Your task to perform on an android device: change the clock style Image 0: 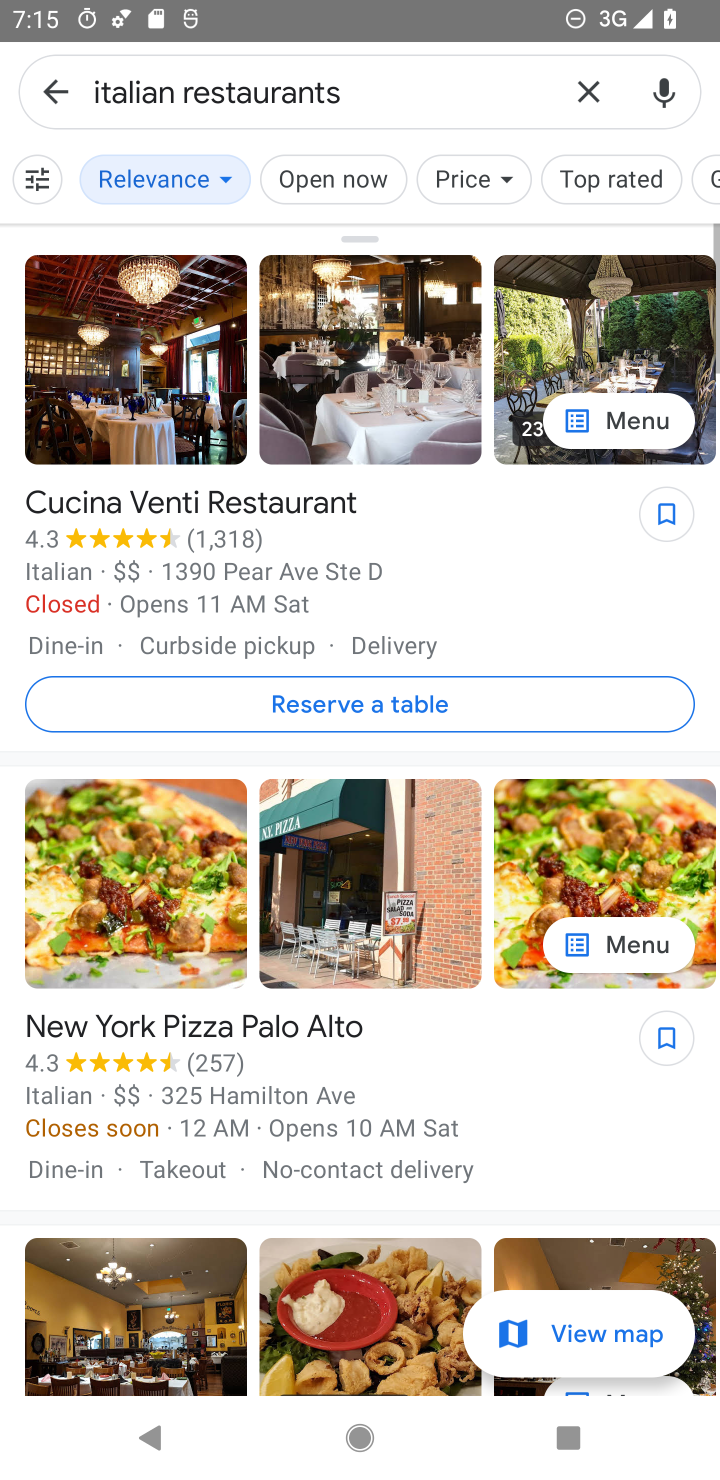
Step 0: drag from (488, 897) to (502, 502)
Your task to perform on an android device: change the clock style Image 1: 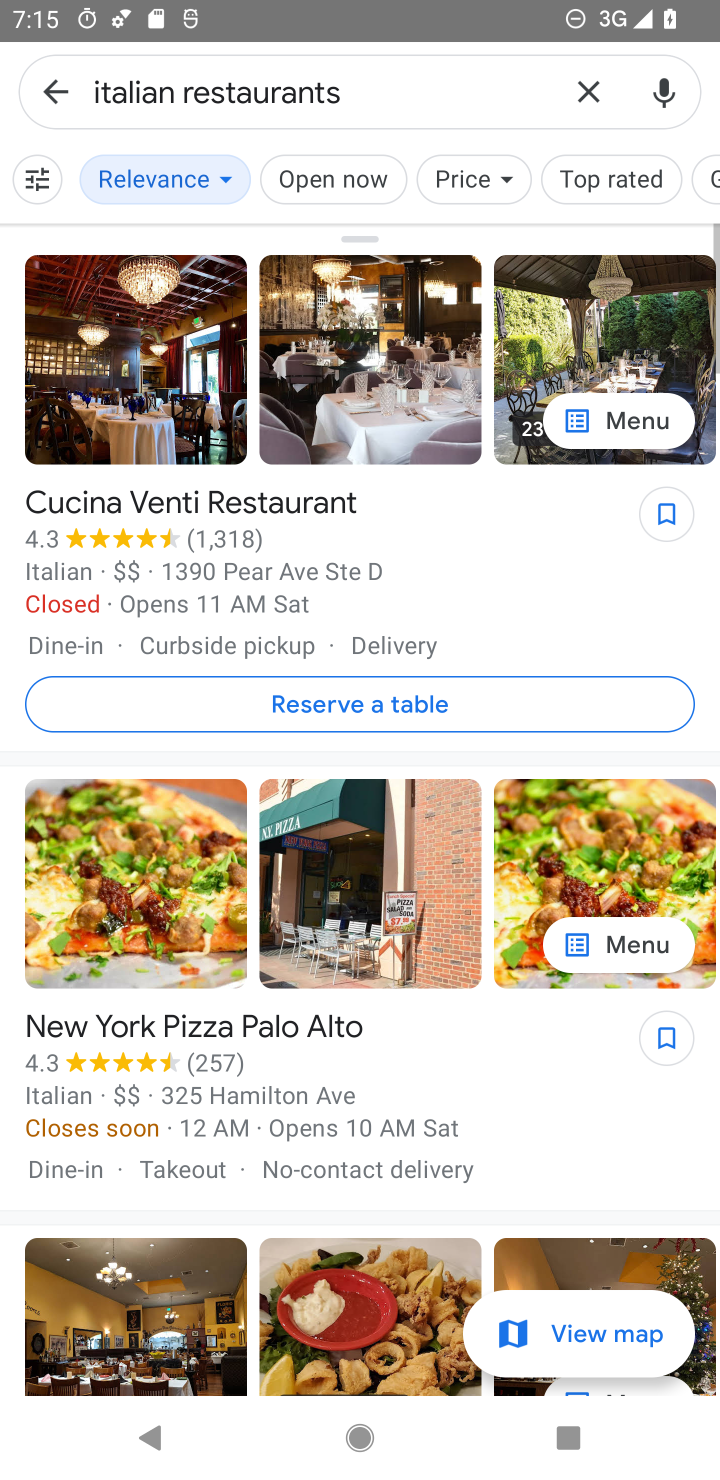
Step 1: drag from (447, 835) to (492, 482)
Your task to perform on an android device: change the clock style Image 2: 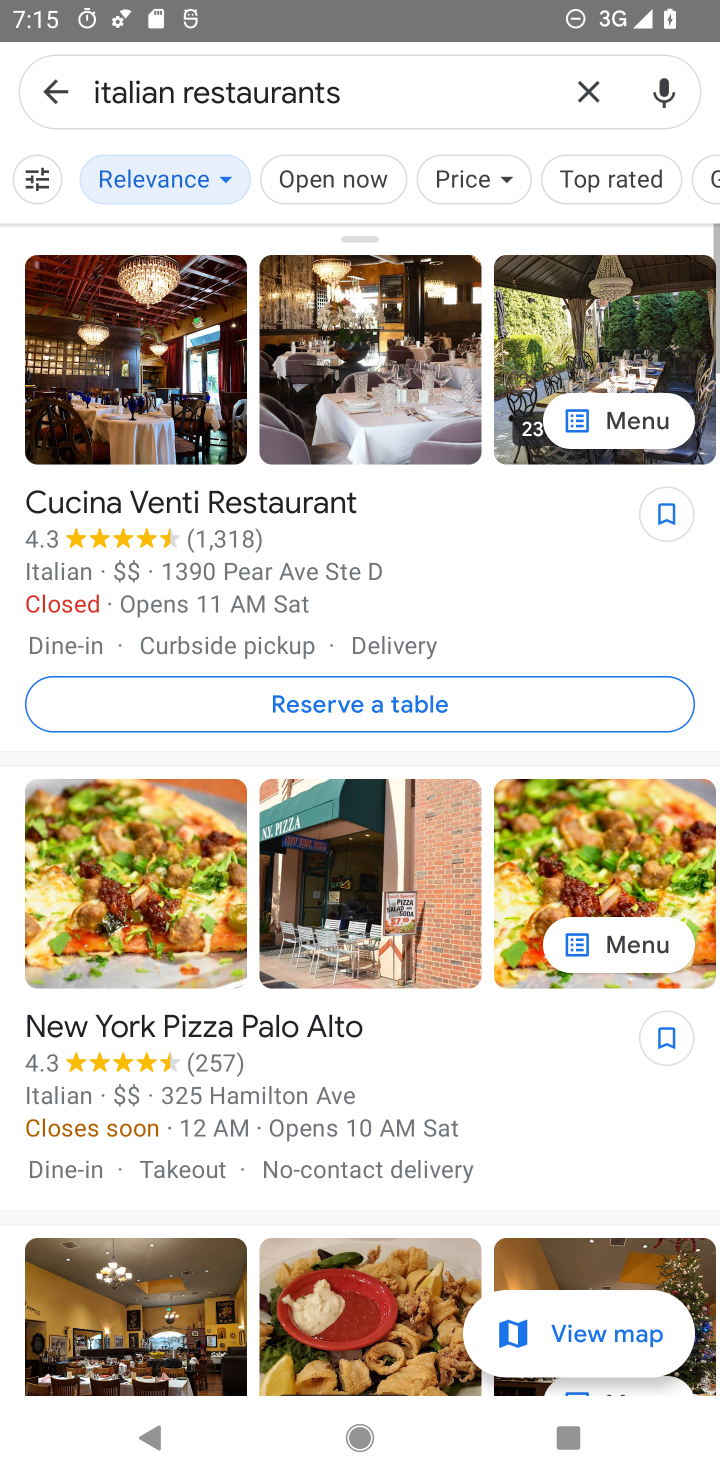
Step 2: drag from (420, 576) to (418, 1201)
Your task to perform on an android device: change the clock style Image 3: 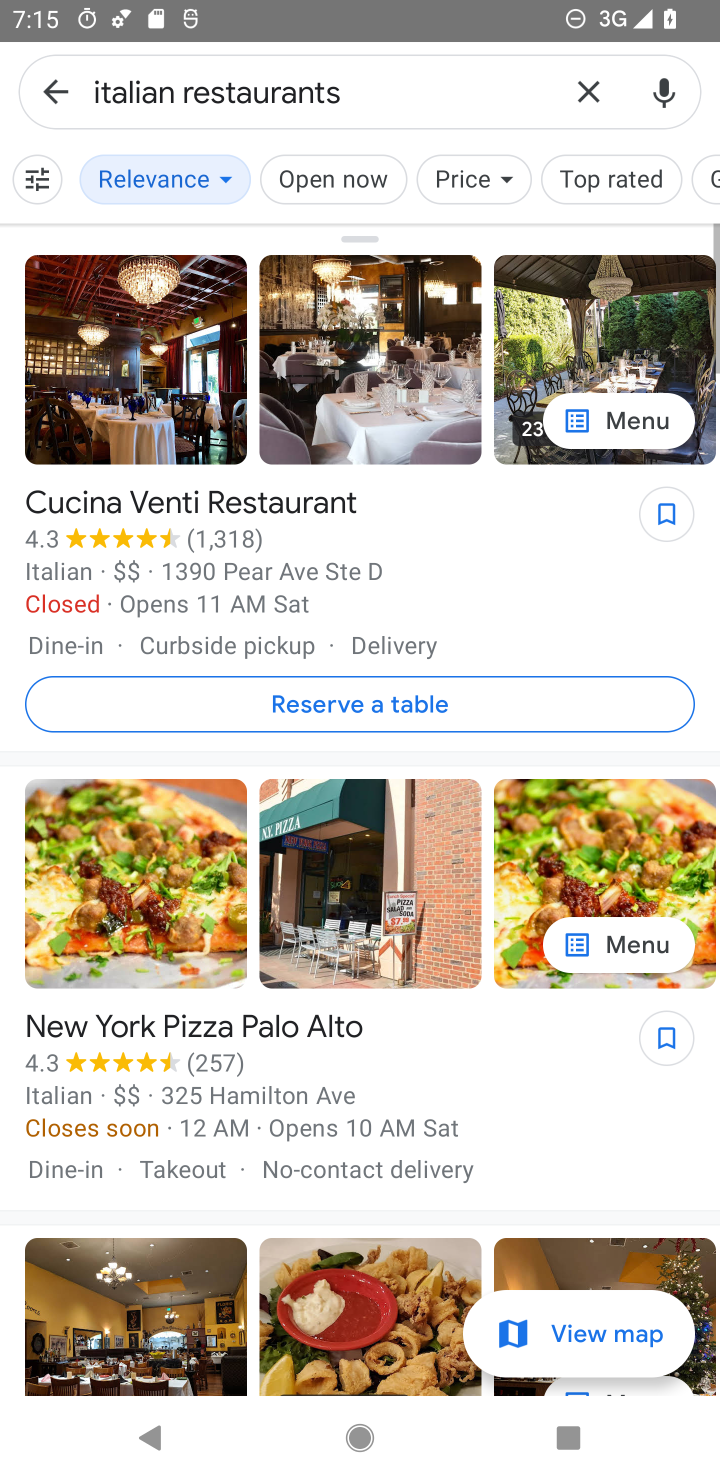
Step 3: drag from (492, 440) to (613, 252)
Your task to perform on an android device: change the clock style Image 4: 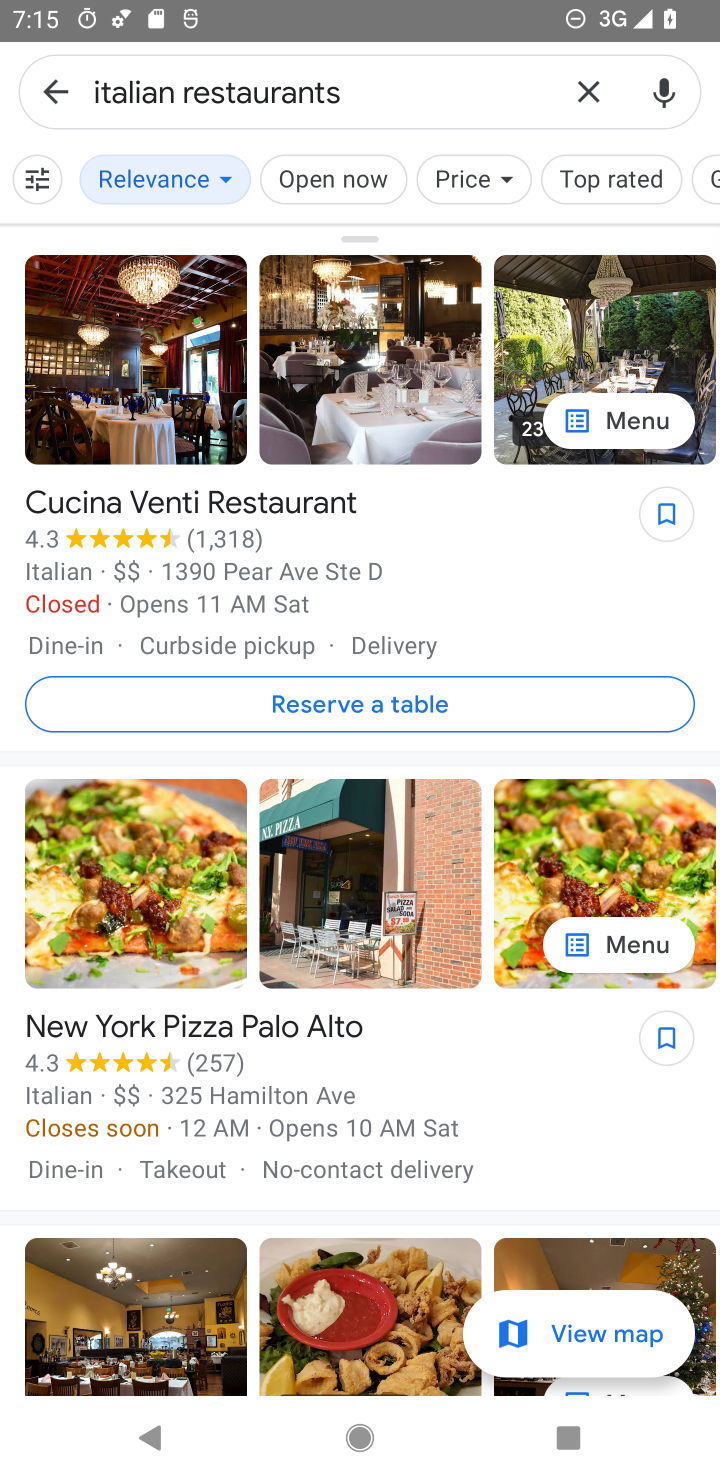
Step 4: drag from (363, 945) to (363, 401)
Your task to perform on an android device: change the clock style Image 5: 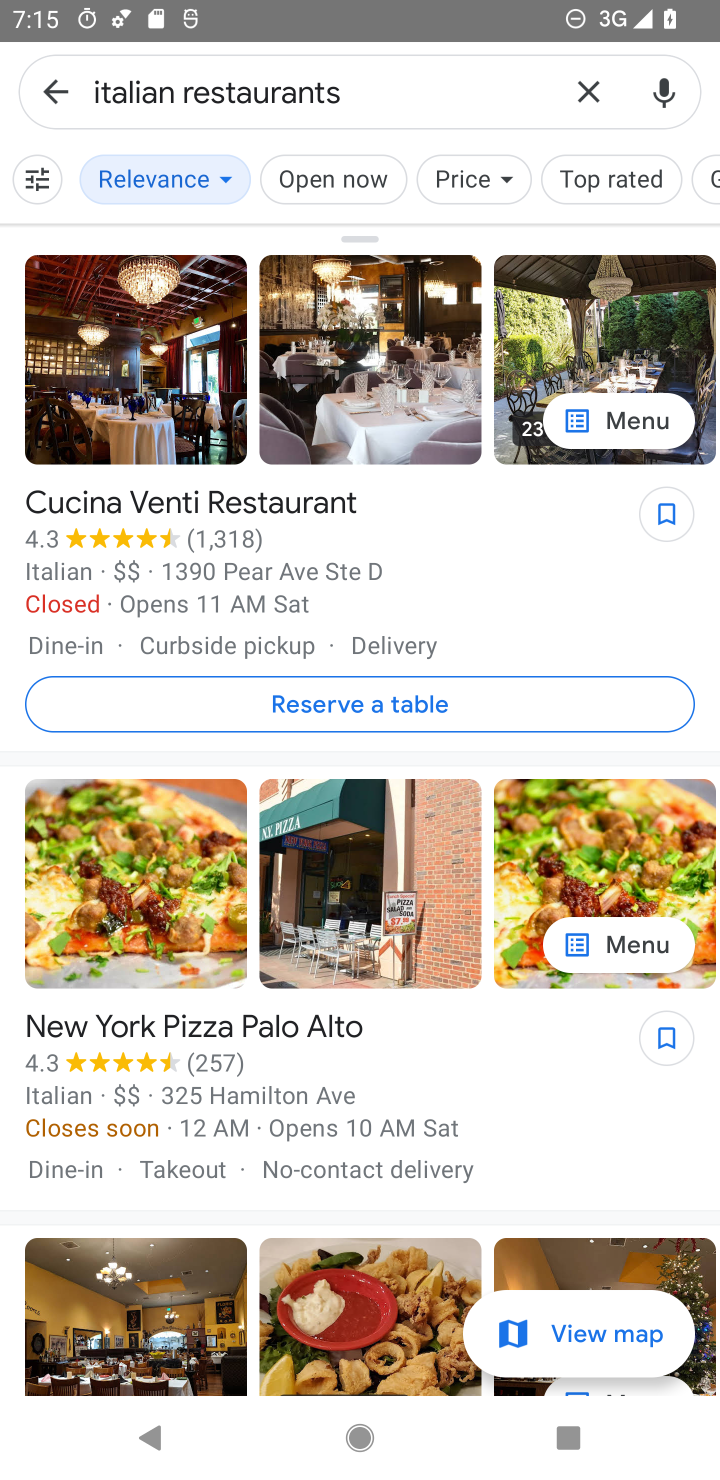
Step 5: press home button
Your task to perform on an android device: change the clock style Image 6: 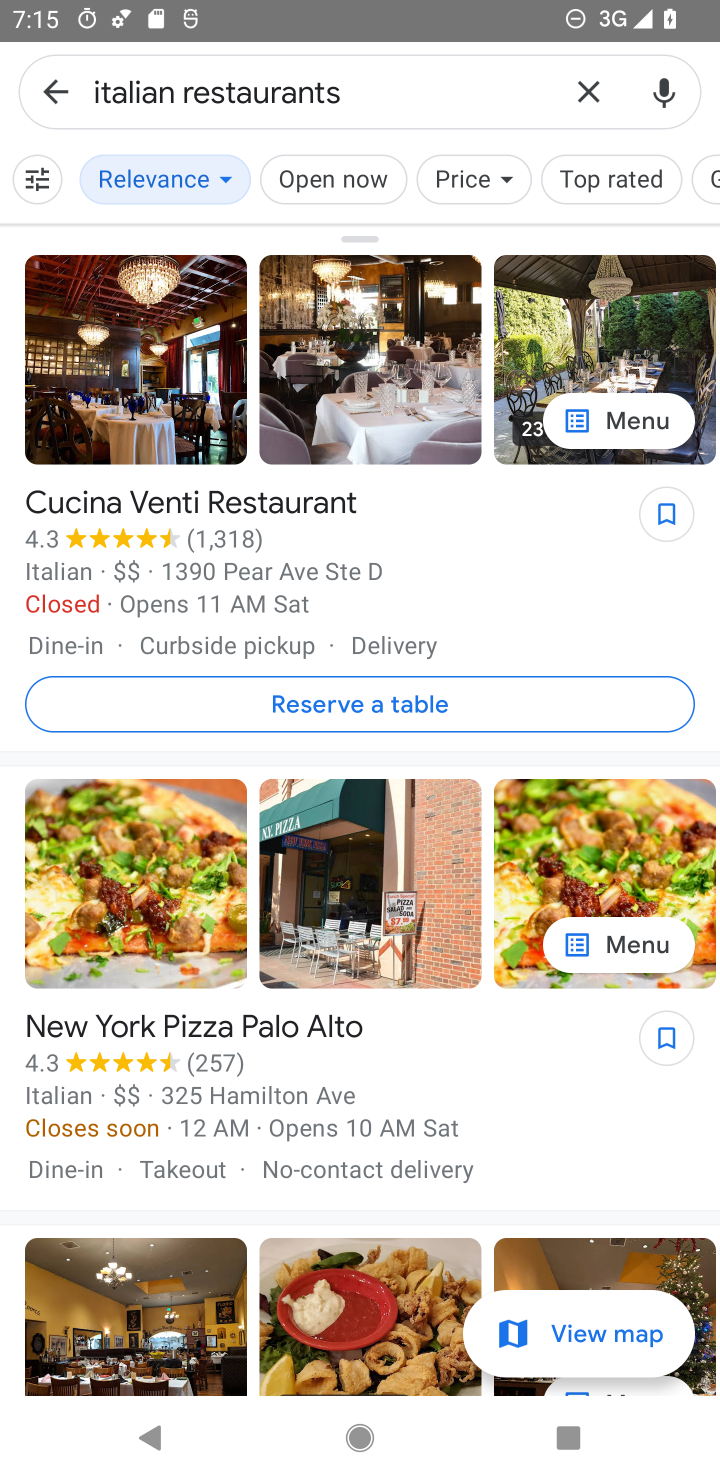
Step 6: drag from (223, 156) to (654, 506)
Your task to perform on an android device: change the clock style Image 7: 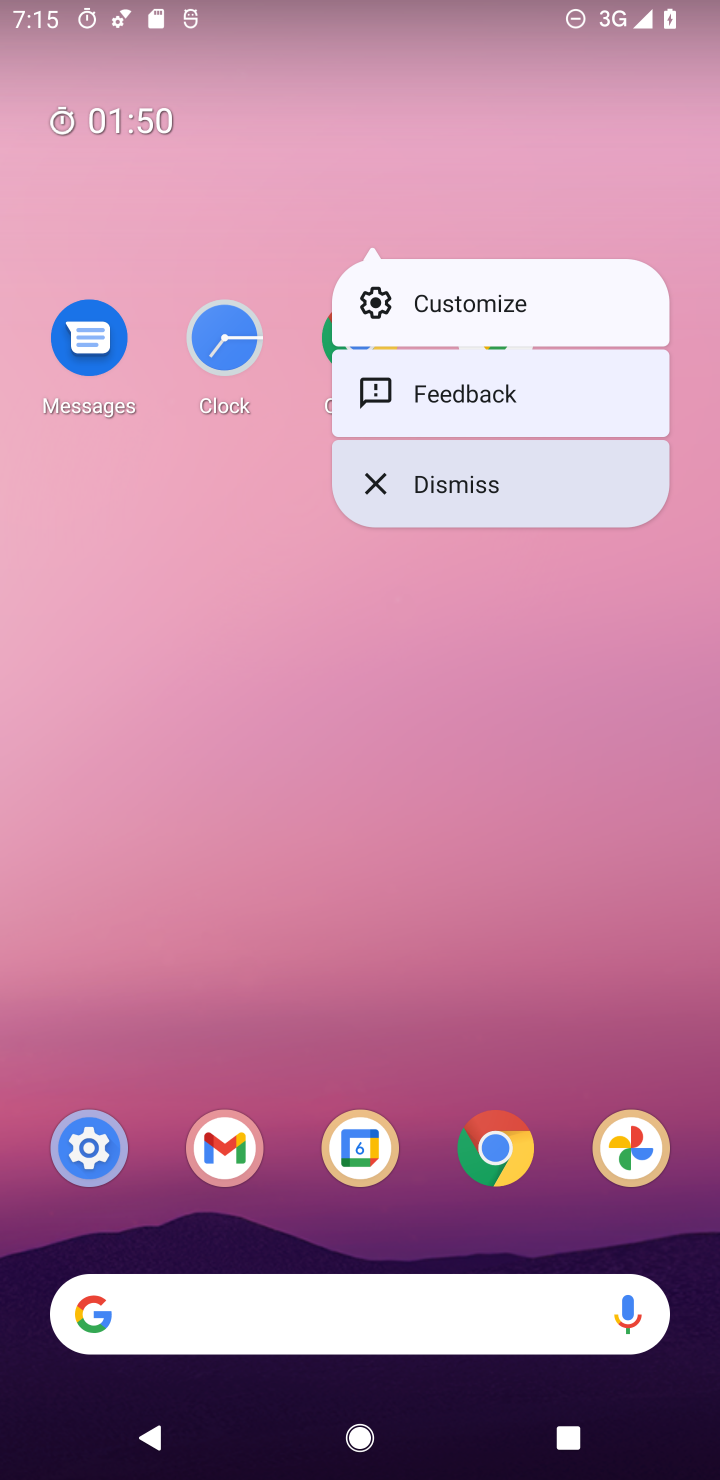
Step 7: drag from (378, 1211) to (501, 190)
Your task to perform on an android device: change the clock style Image 8: 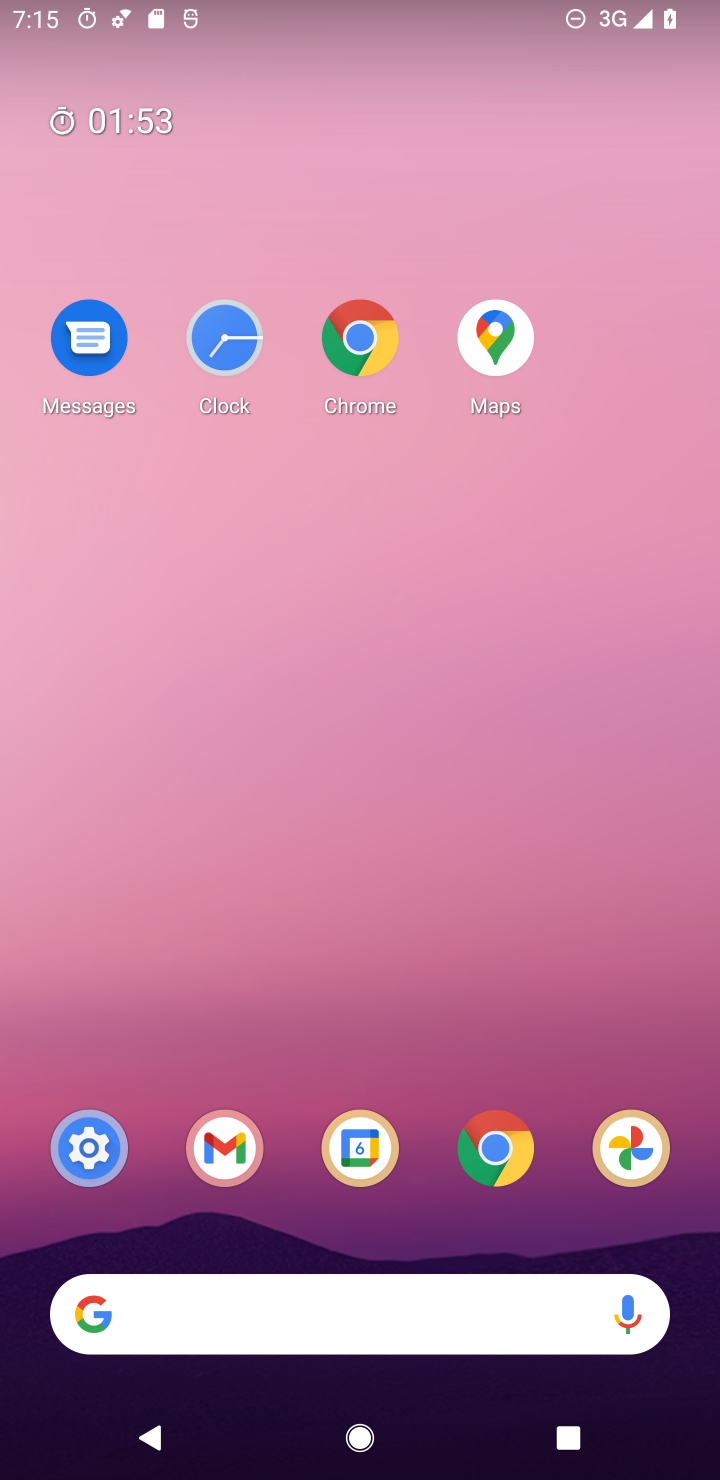
Step 8: drag from (416, 1102) to (500, 179)
Your task to perform on an android device: change the clock style Image 9: 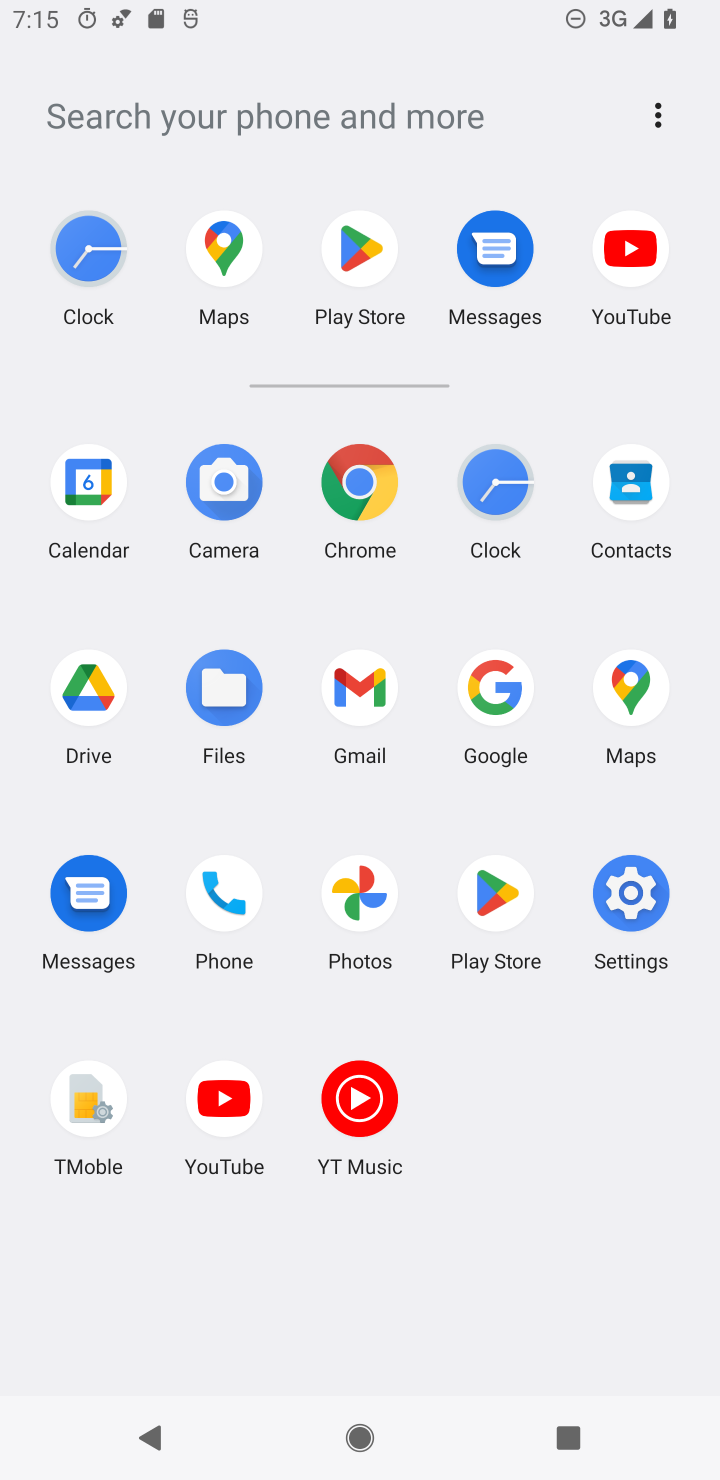
Step 9: click (503, 489)
Your task to perform on an android device: change the clock style Image 10: 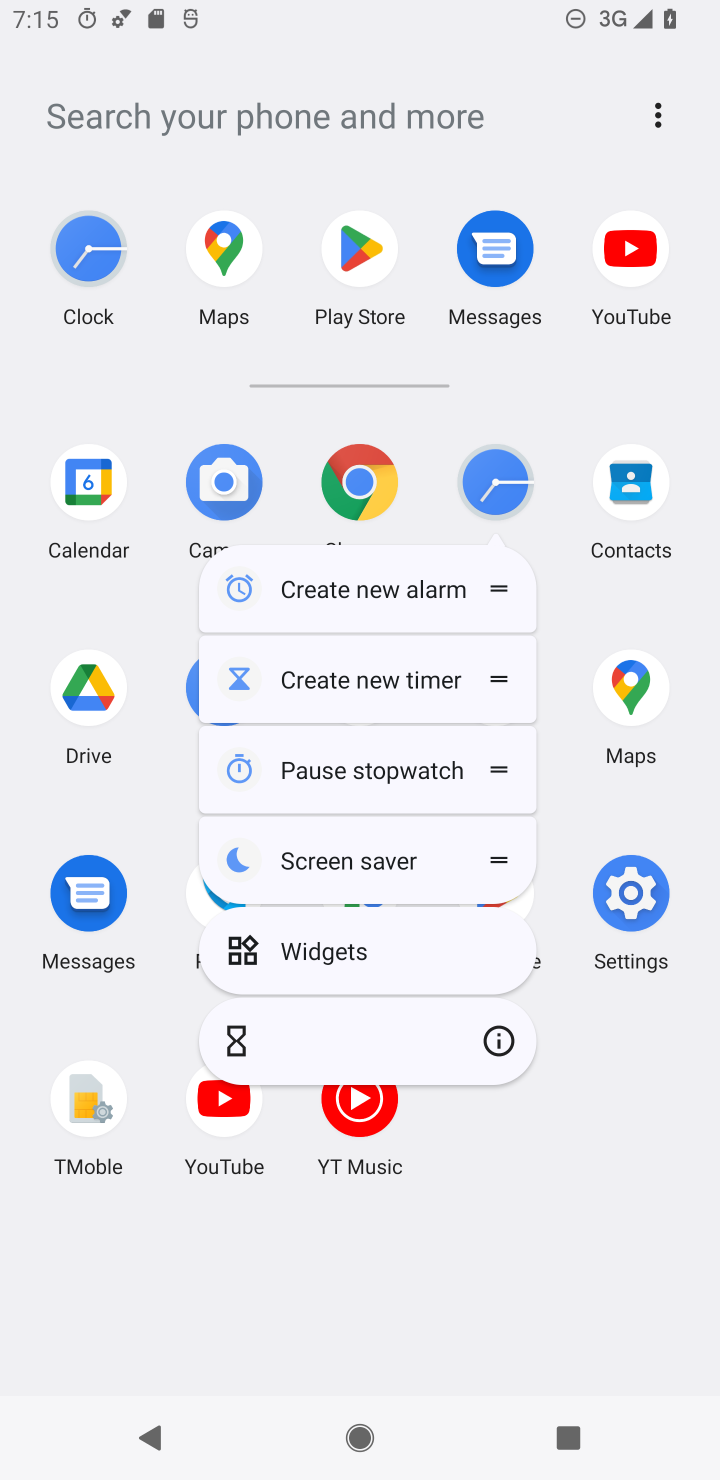
Step 10: click (492, 1024)
Your task to perform on an android device: change the clock style Image 11: 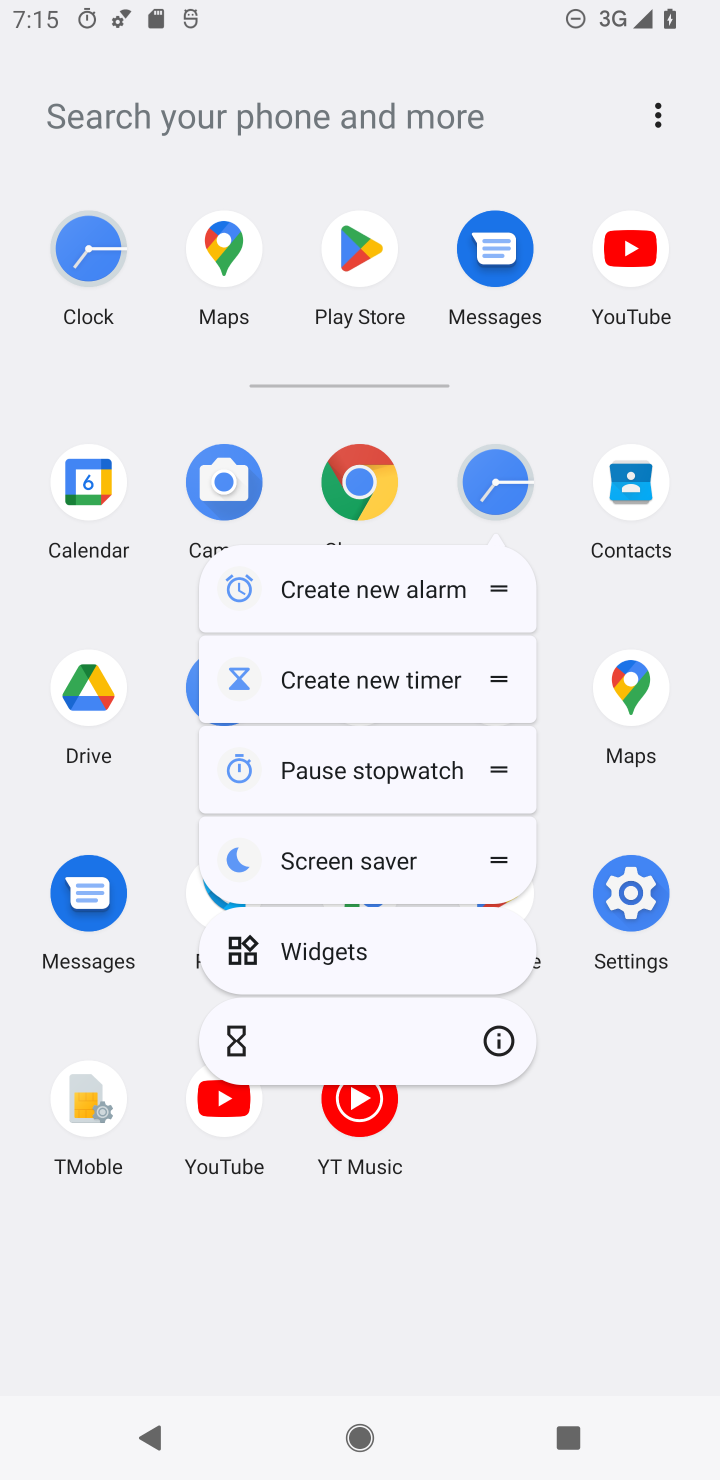
Step 11: click (497, 1040)
Your task to perform on an android device: change the clock style Image 12: 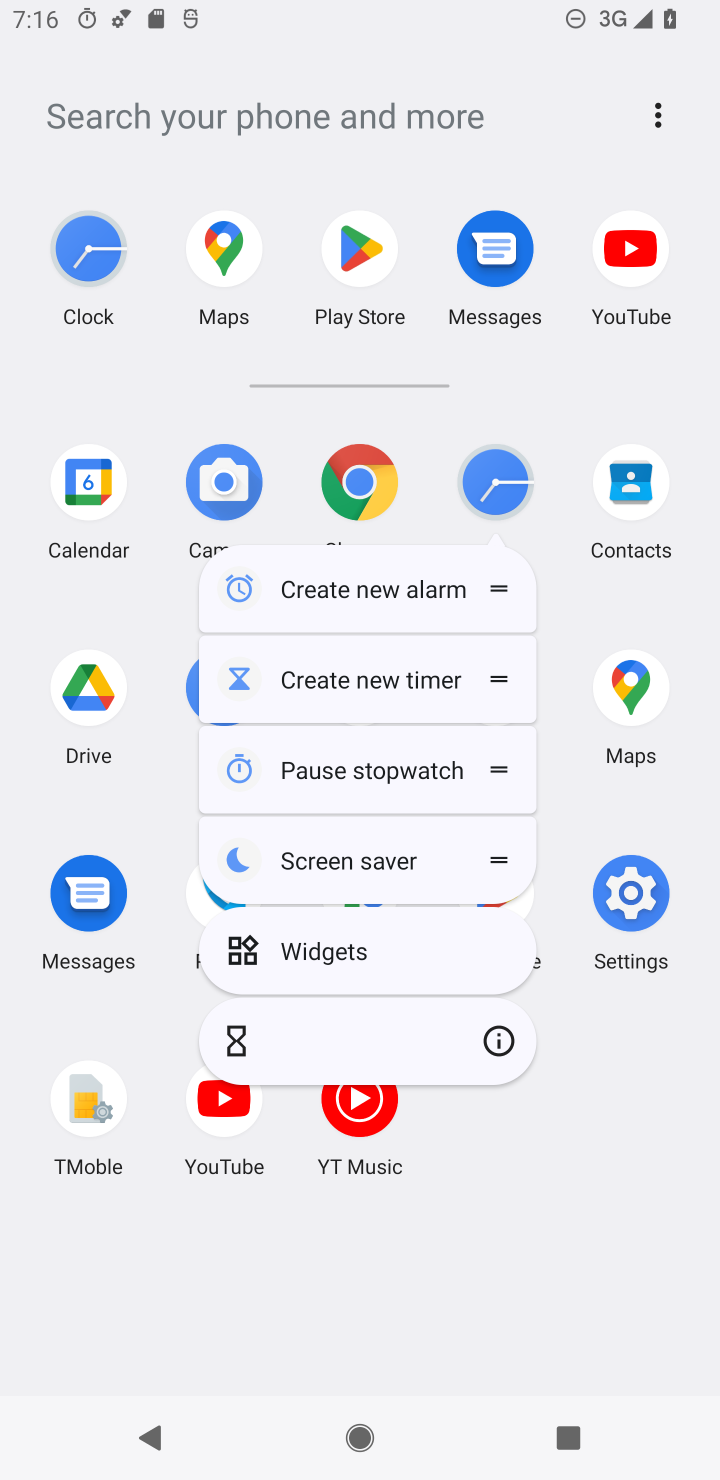
Step 12: click (507, 1043)
Your task to perform on an android device: change the clock style Image 13: 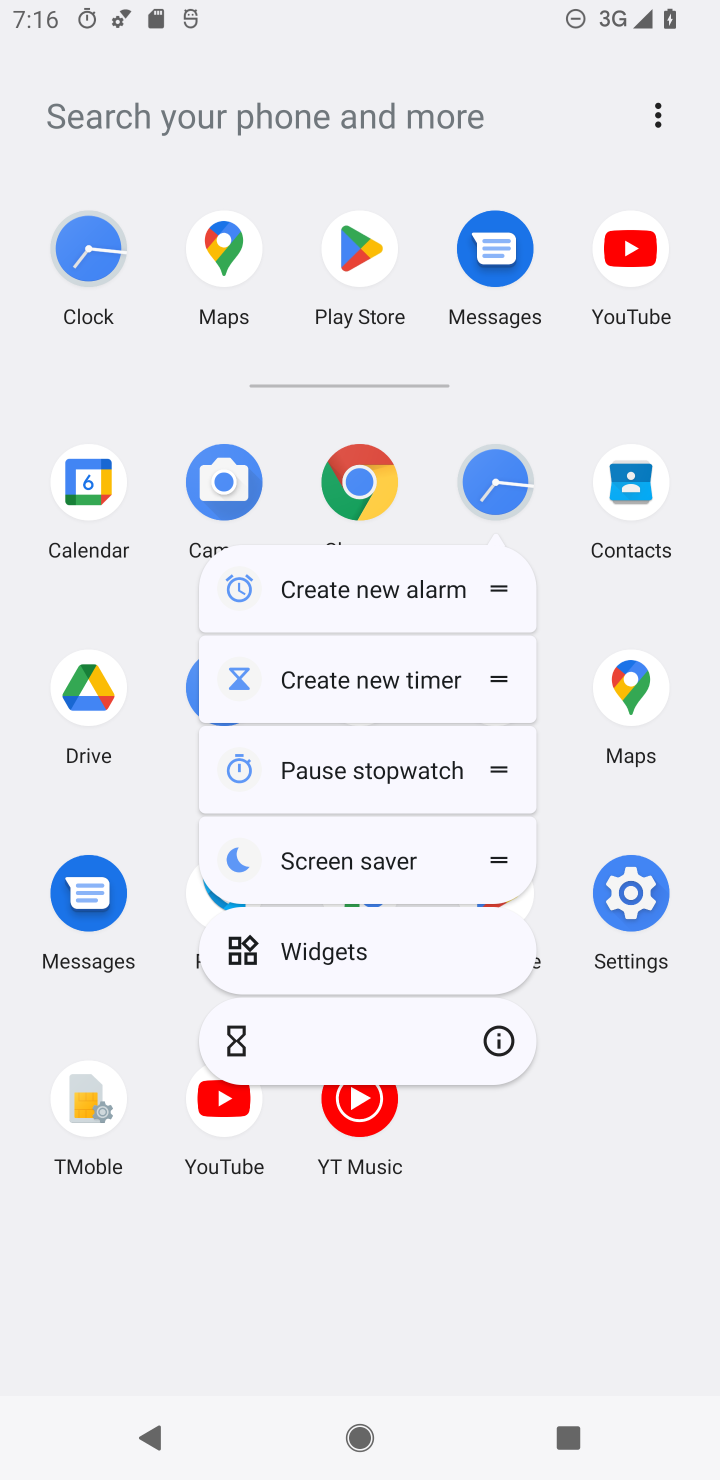
Step 13: click (492, 1044)
Your task to perform on an android device: change the clock style Image 14: 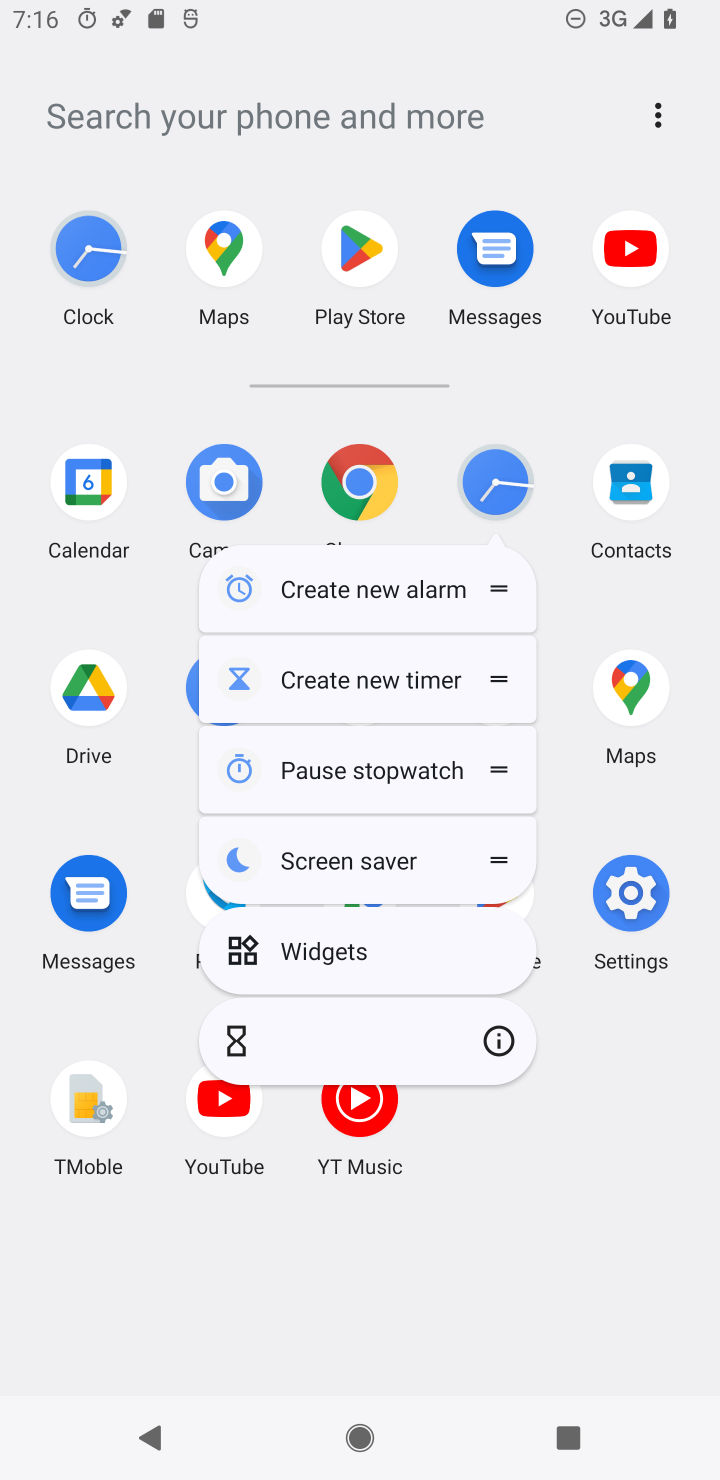
Step 14: click (449, 1001)
Your task to perform on an android device: change the clock style Image 15: 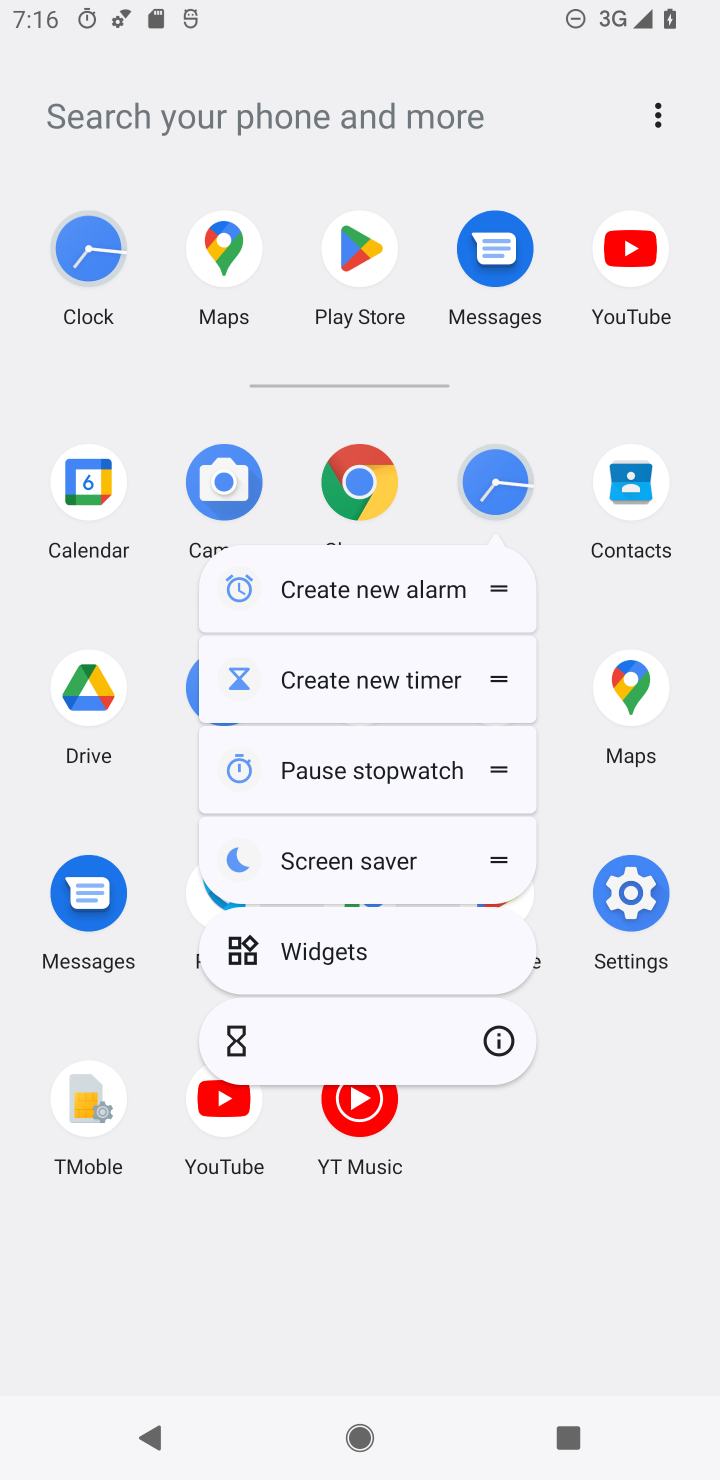
Step 15: click (501, 1060)
Your task to perform on an android device: change the clock style Image 16: 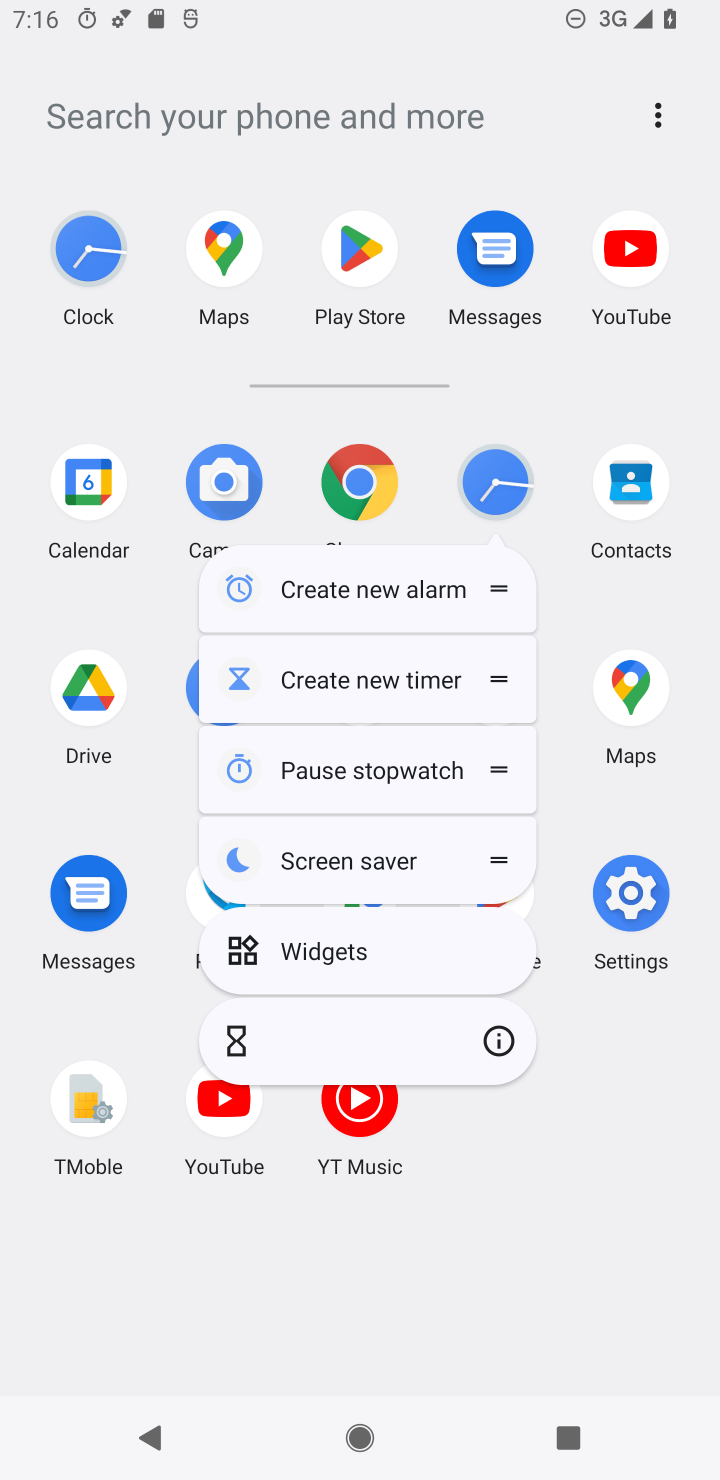
Step 16: click (486, 483)
Your task to perform on an android device: change the clock style Image 17: 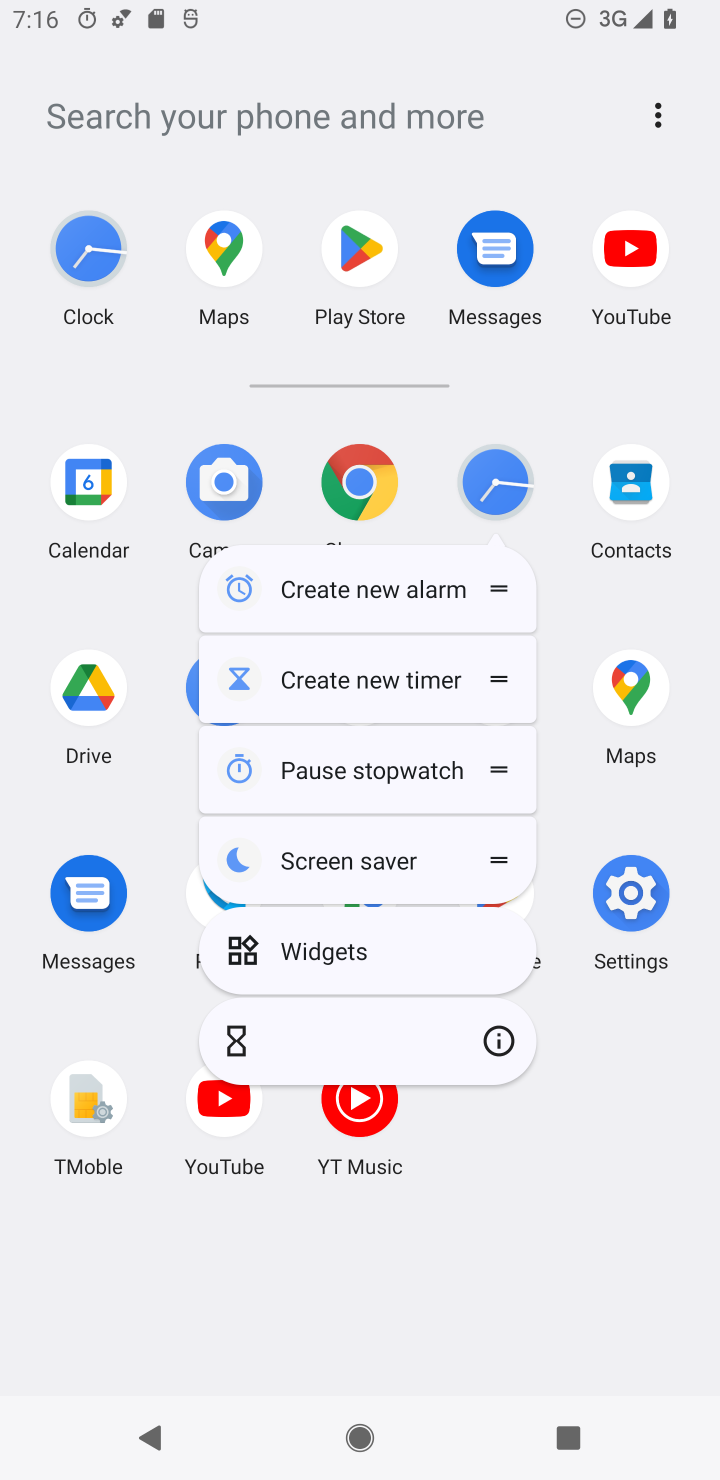
Step 17: click (507, 1039)
Your task to perform on an android device: change the clock style Image 18: 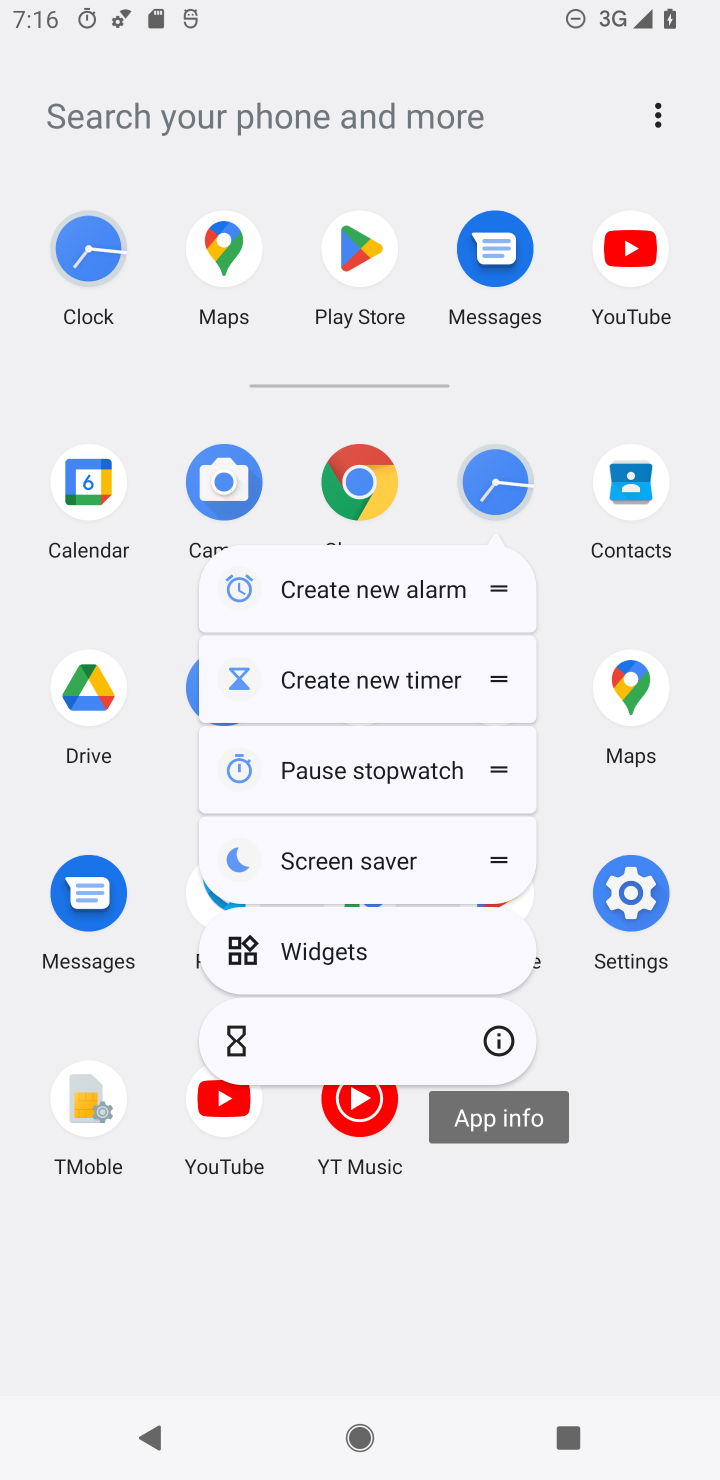
Step 18: click (478, 473)
Your task to perform on an android device: change the clock style Image 19: 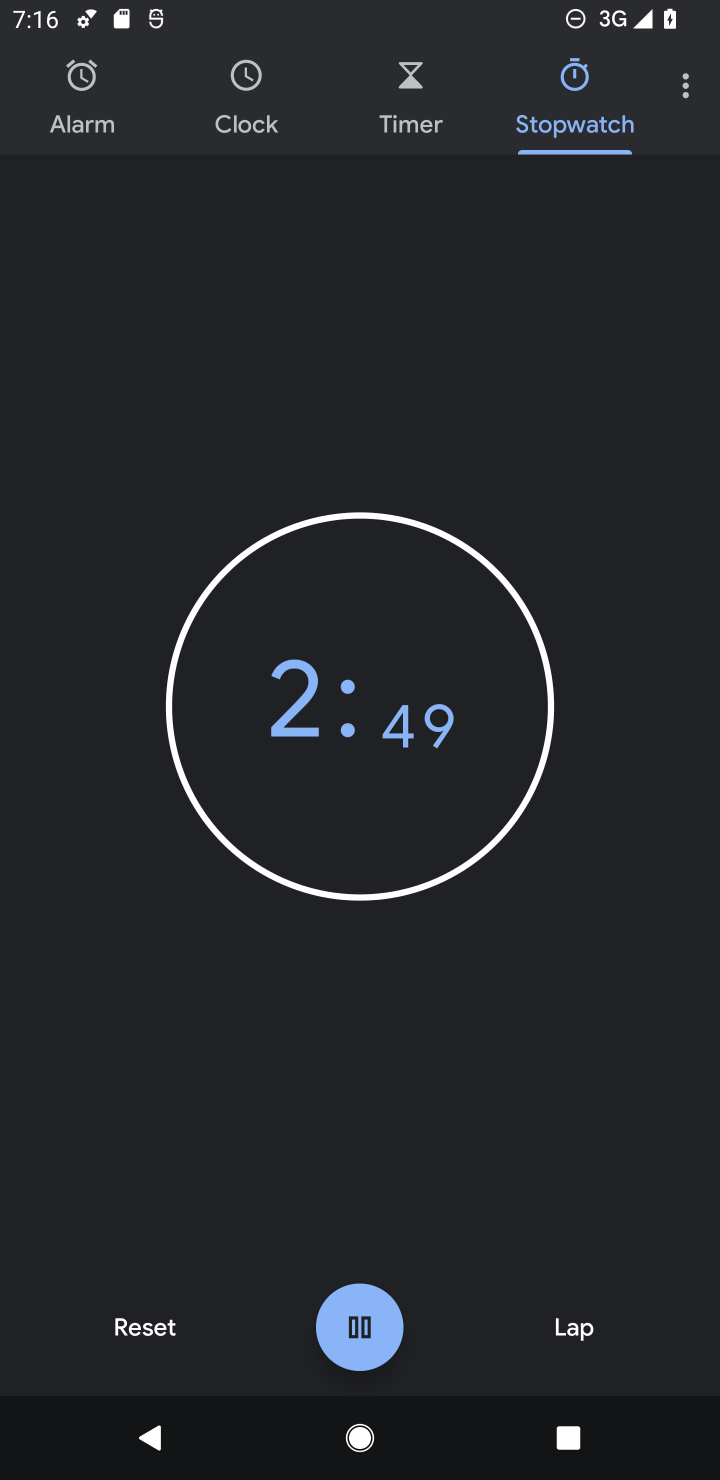
Step 19: click (482, 478)
Your task to perform on an android device: change the clock style Image 20: 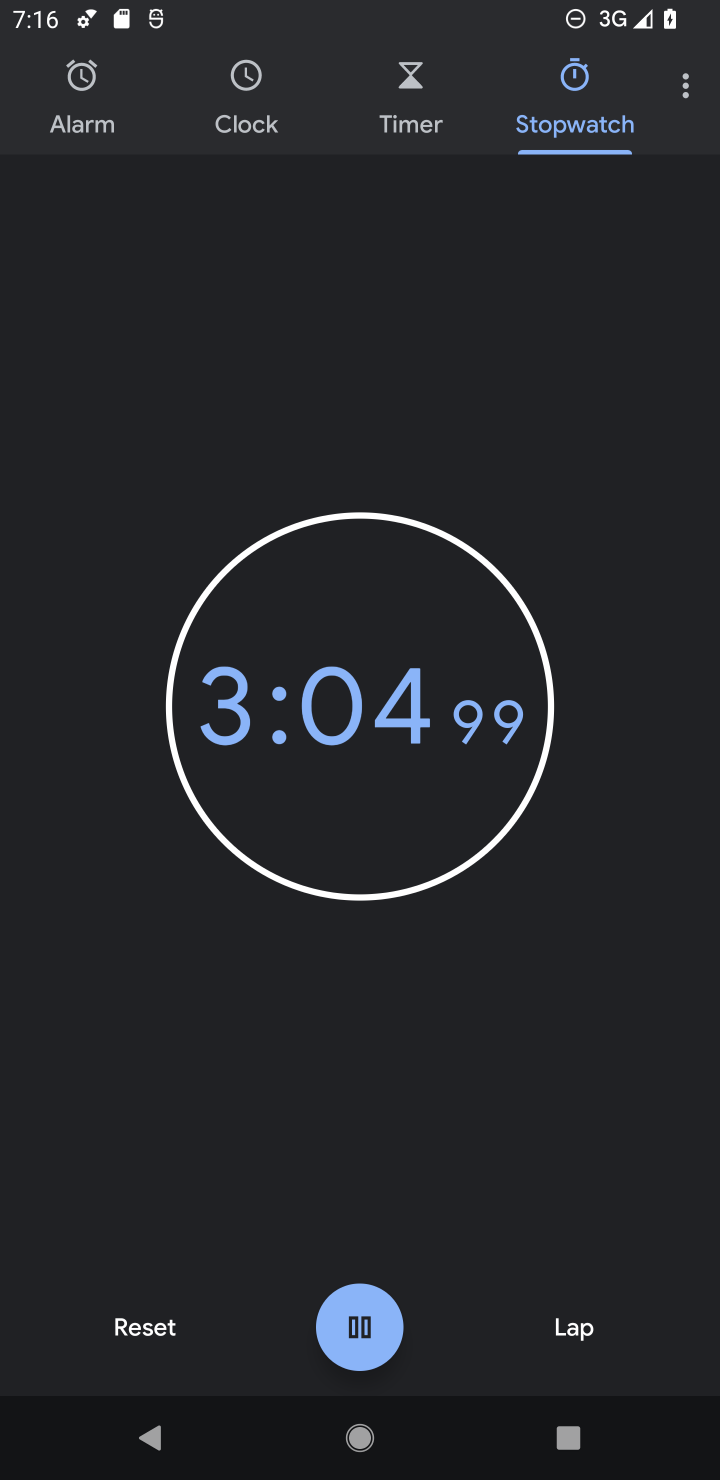
Step 20: click (683, 75)
Your task to perform on an android device: change the clock style Image 21: 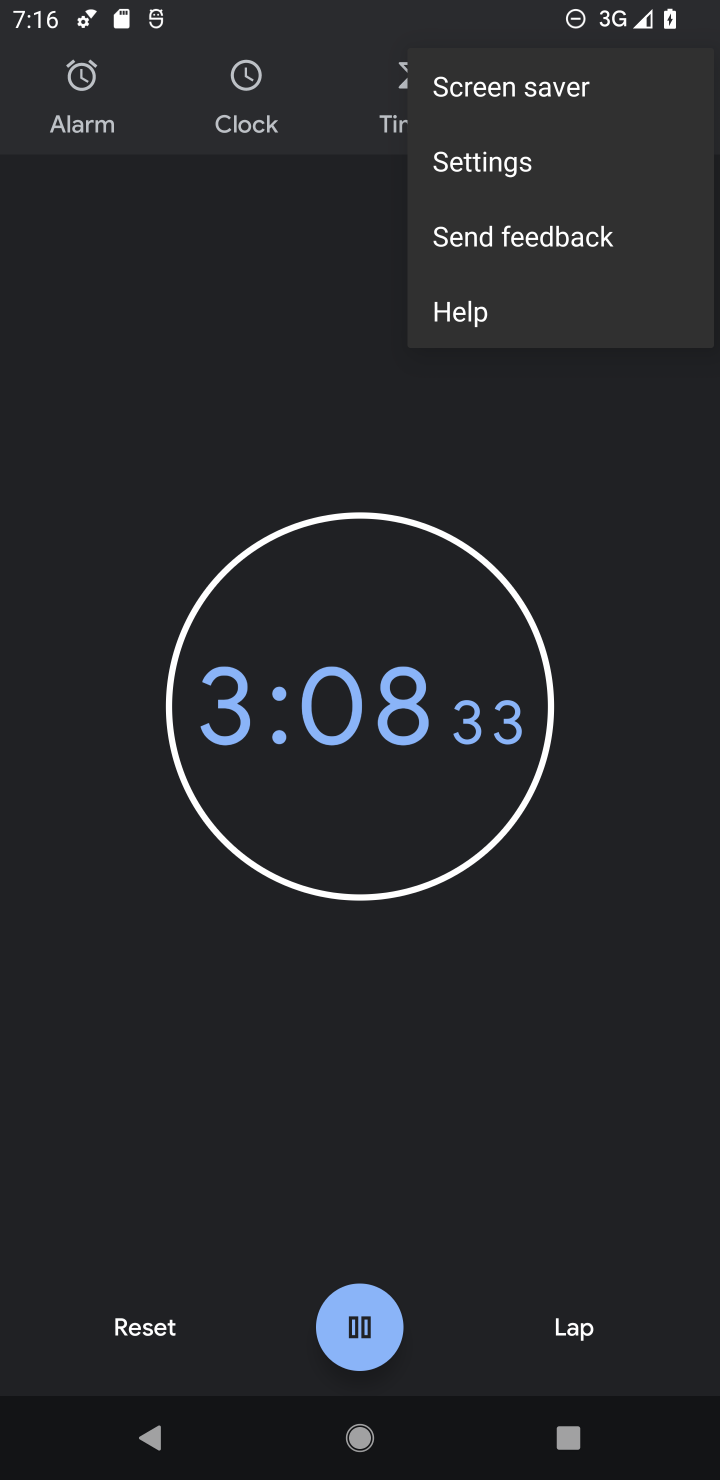
Step 21: click (486, 159)
Your task to perform on an android device: change the clock style Image 22: 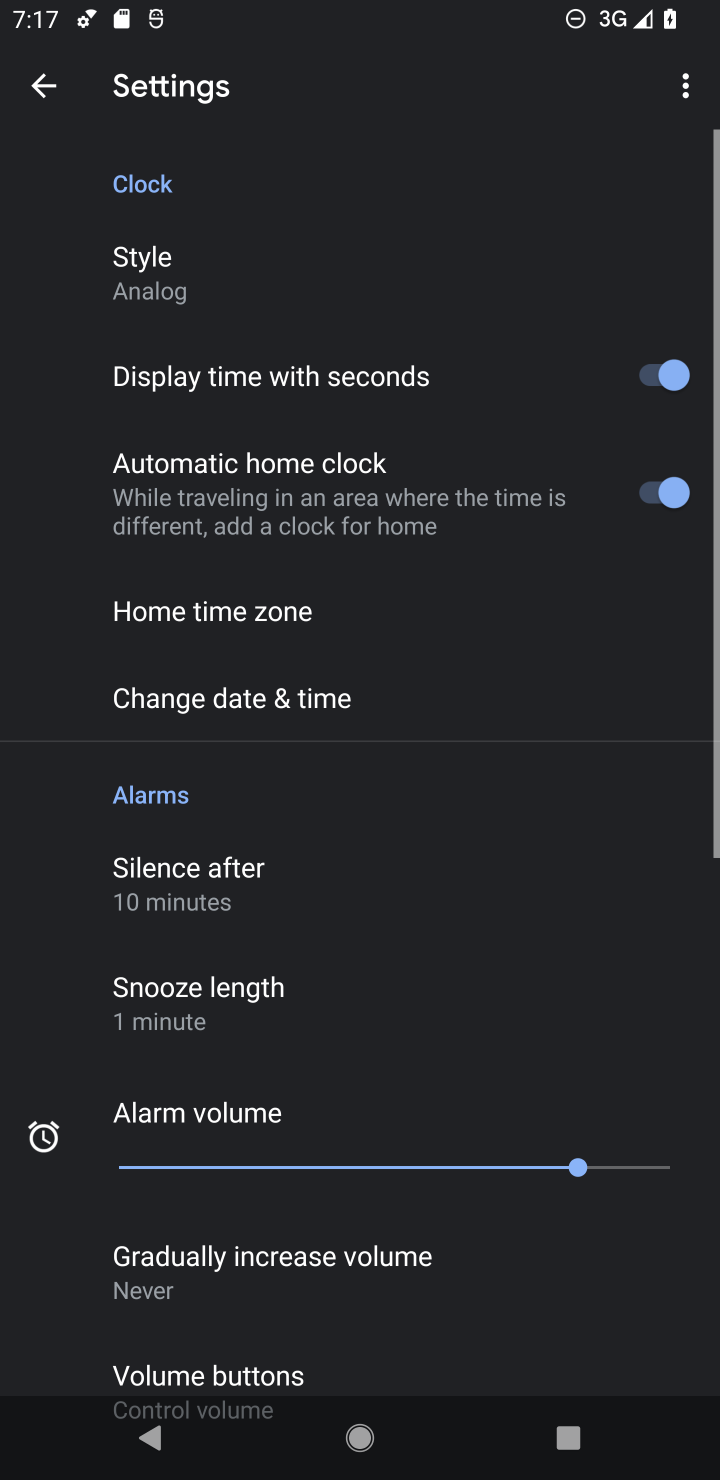
Step 22: drag from (383, 792) to (386, 301)
Your task to perform on an android device: change the clock style Image 23: 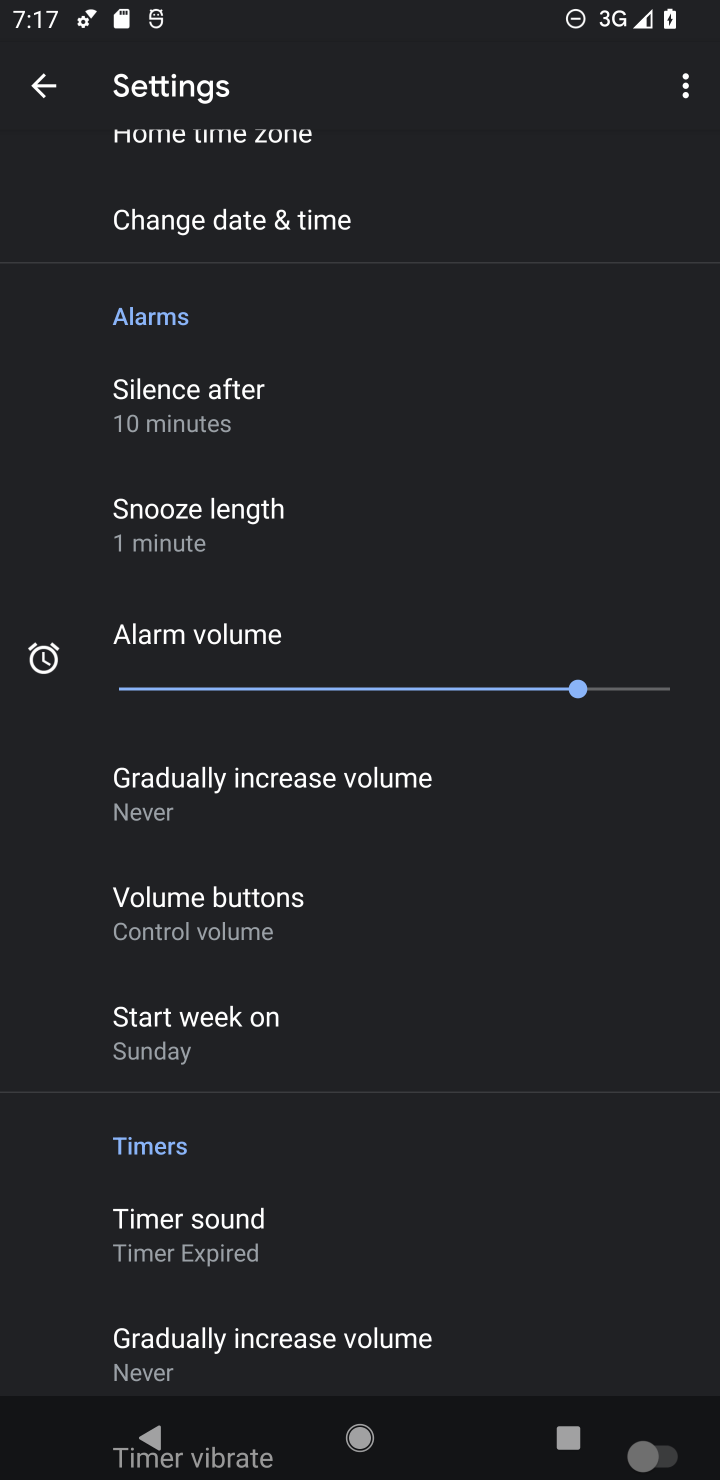
Step 23: drag from (295, 1016) to (437, 566)
Your task to perform on an android device: change the clock style Image 24: 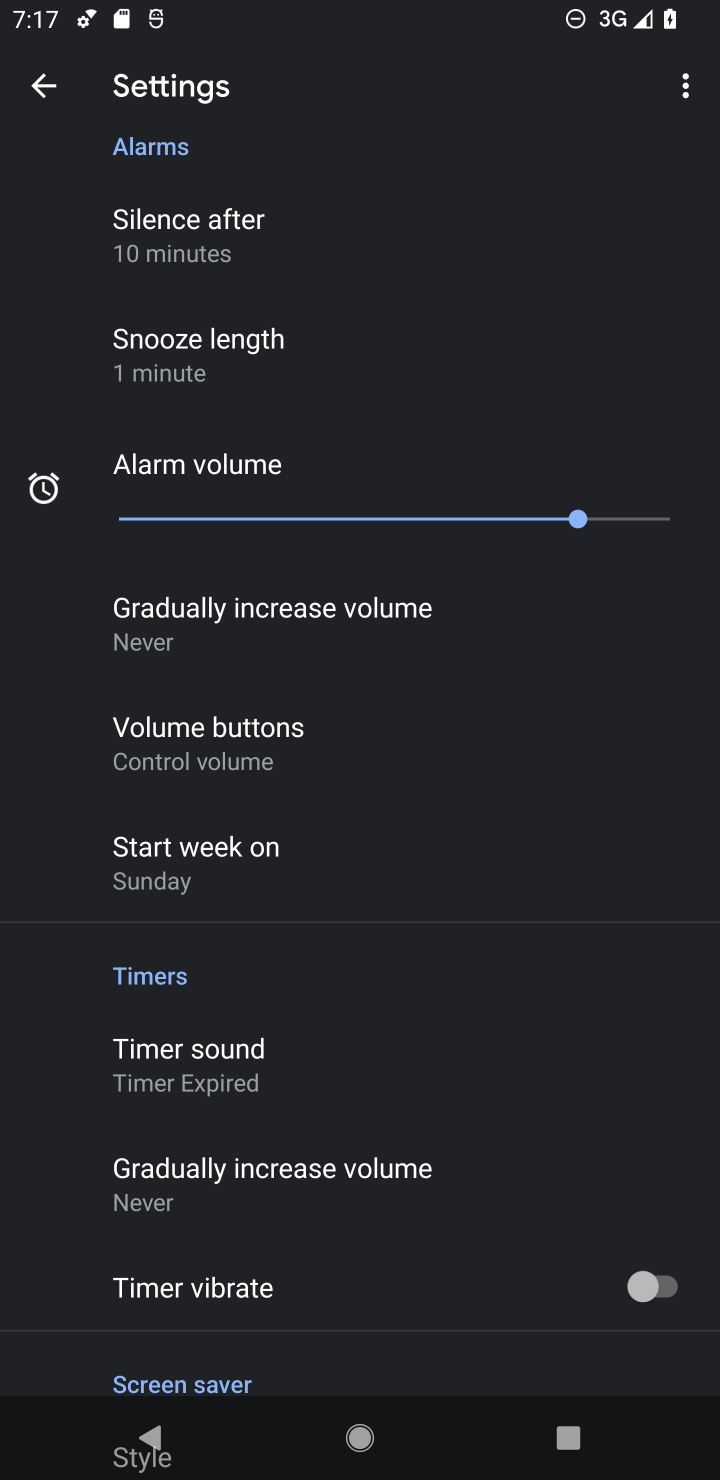
Step 24: drag from (253, 390) to (575, 1302)
Your task to perform on an android device: change the clock style Image 25: 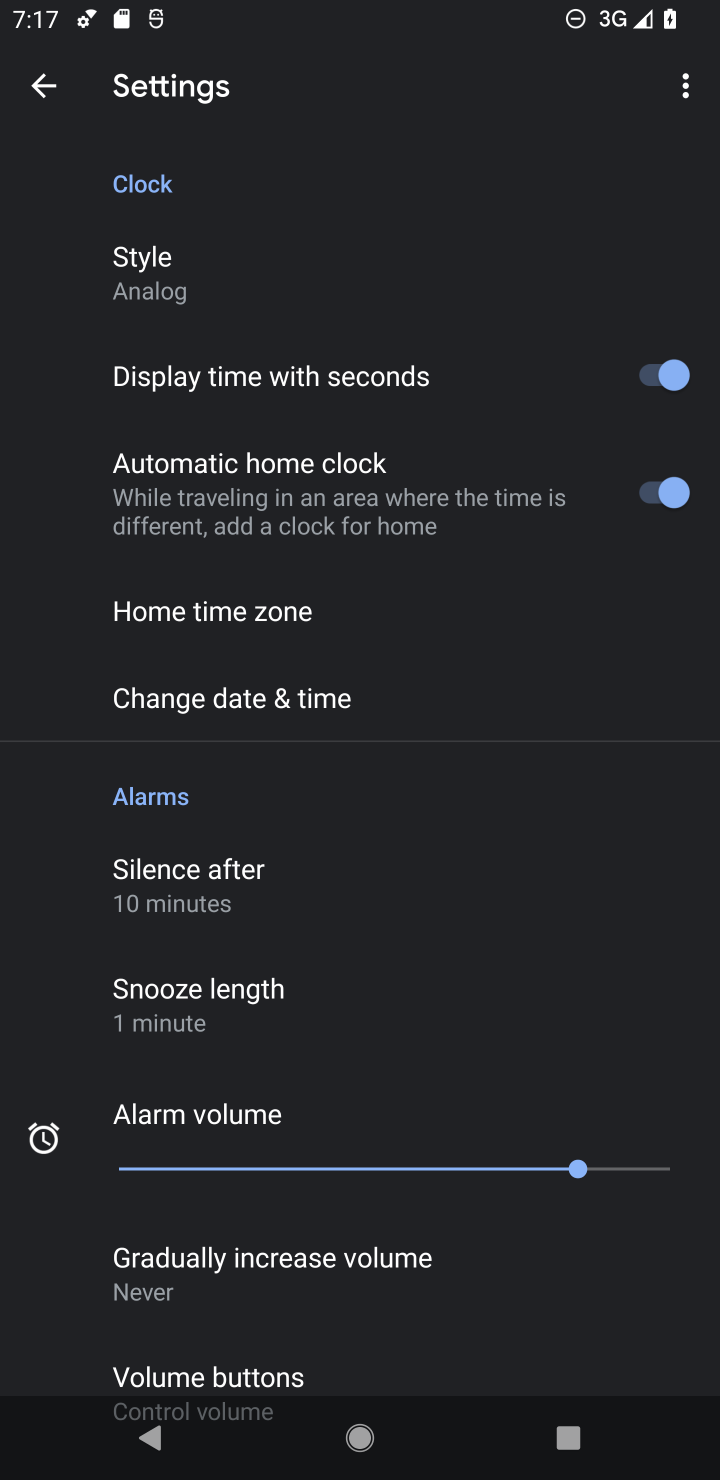
Step 25: drag from (345, 283) to (457, 1439)
Your task to perform on an android device: change the clock style Image 26: 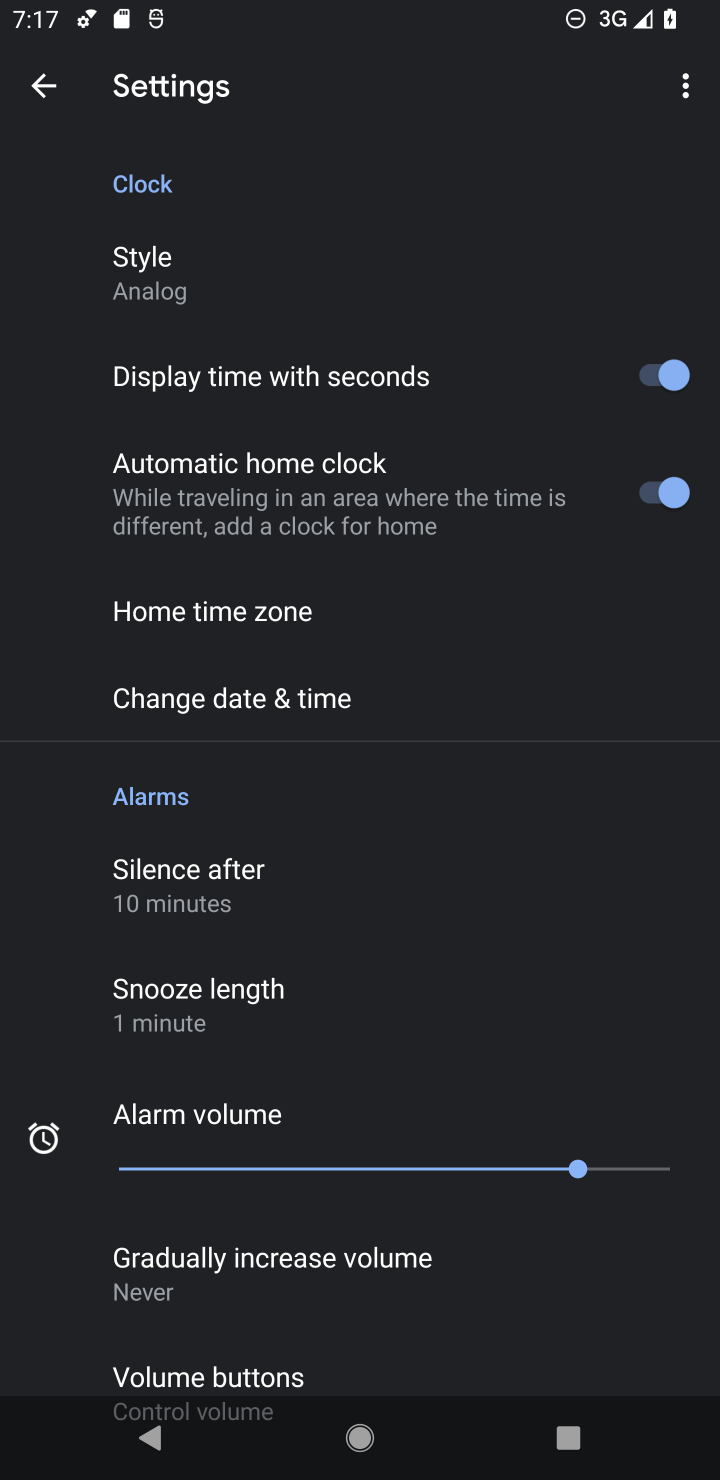
Step 26: click (200, 283)
Your task to perform on an android device: change the clock style Image 27: 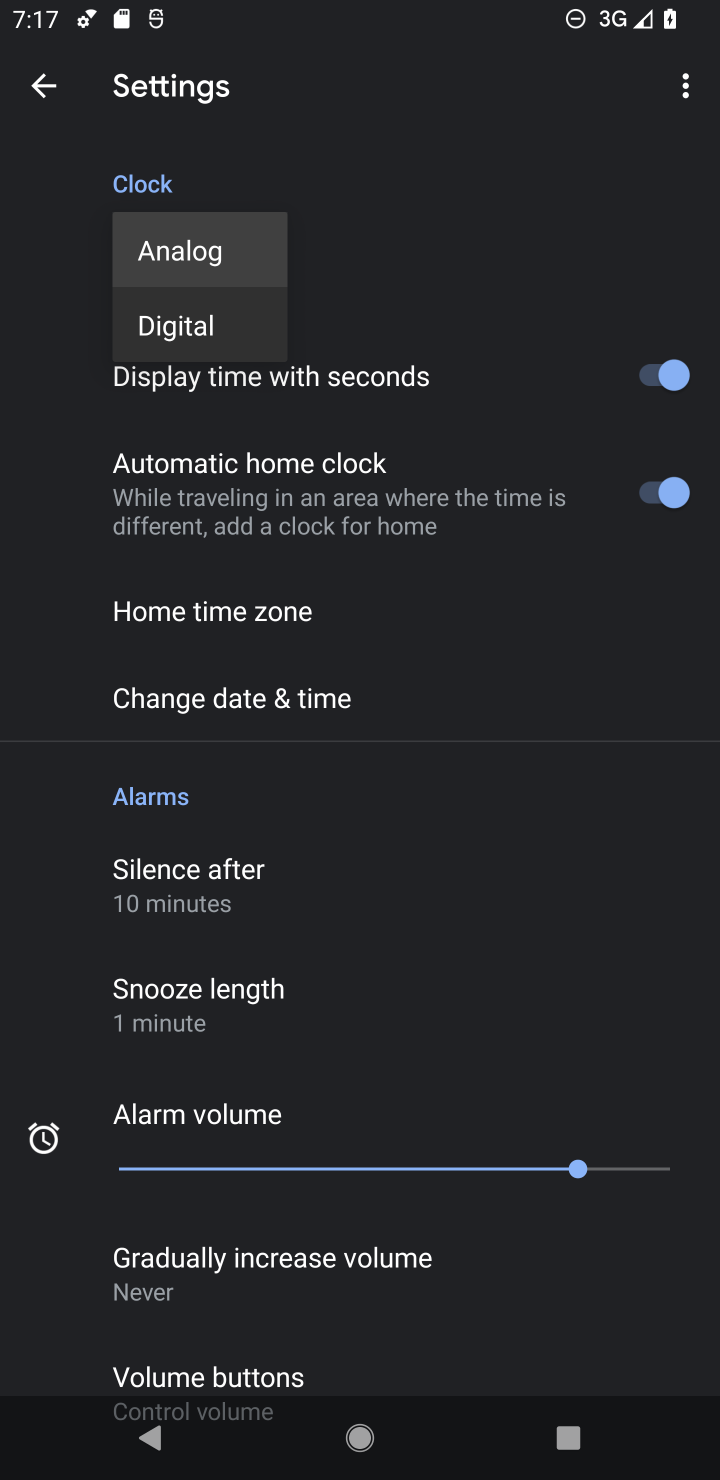
Step 27: click (403, 131)
Your task to perform on an android device: change the clock style Image 28: 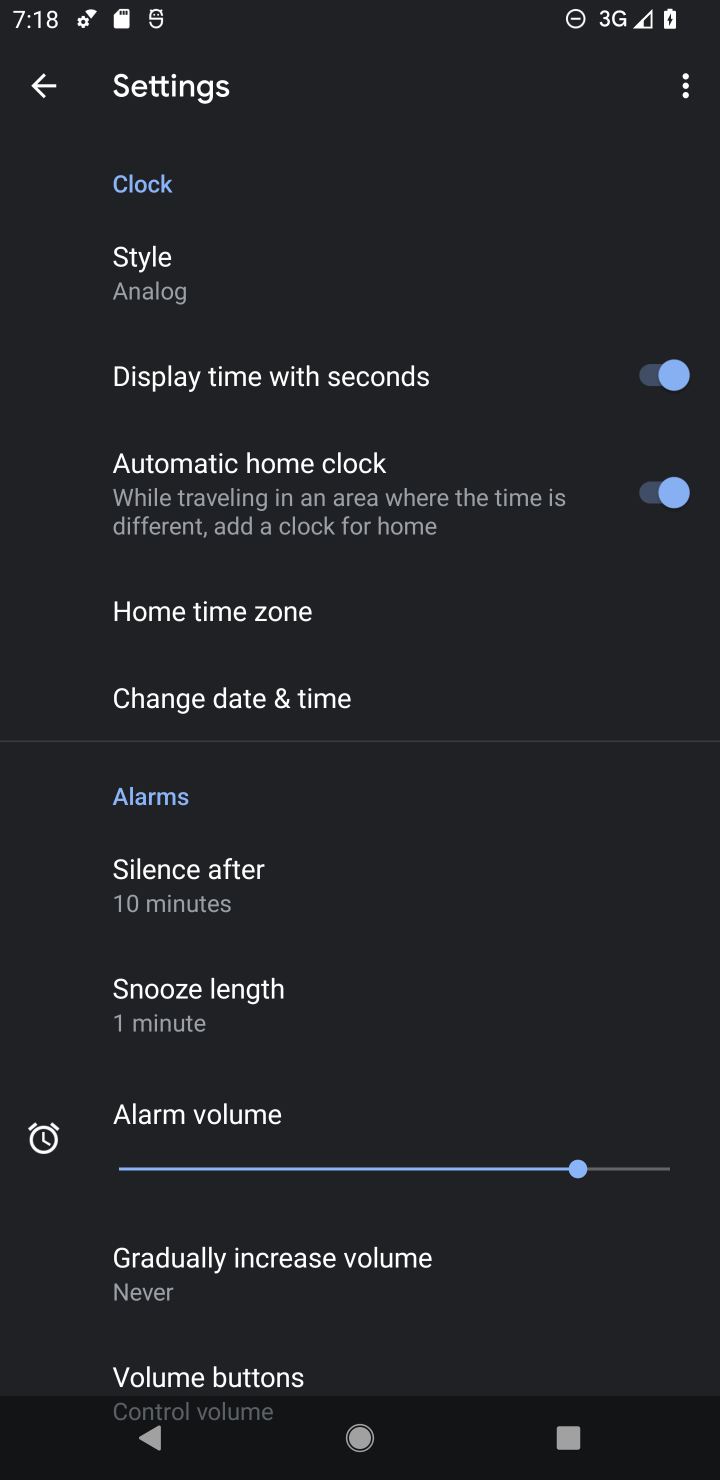
Step 28: drag from (353, 1150) to (406, 527)
Your task to perform on an android device: change the clock style Image 29: 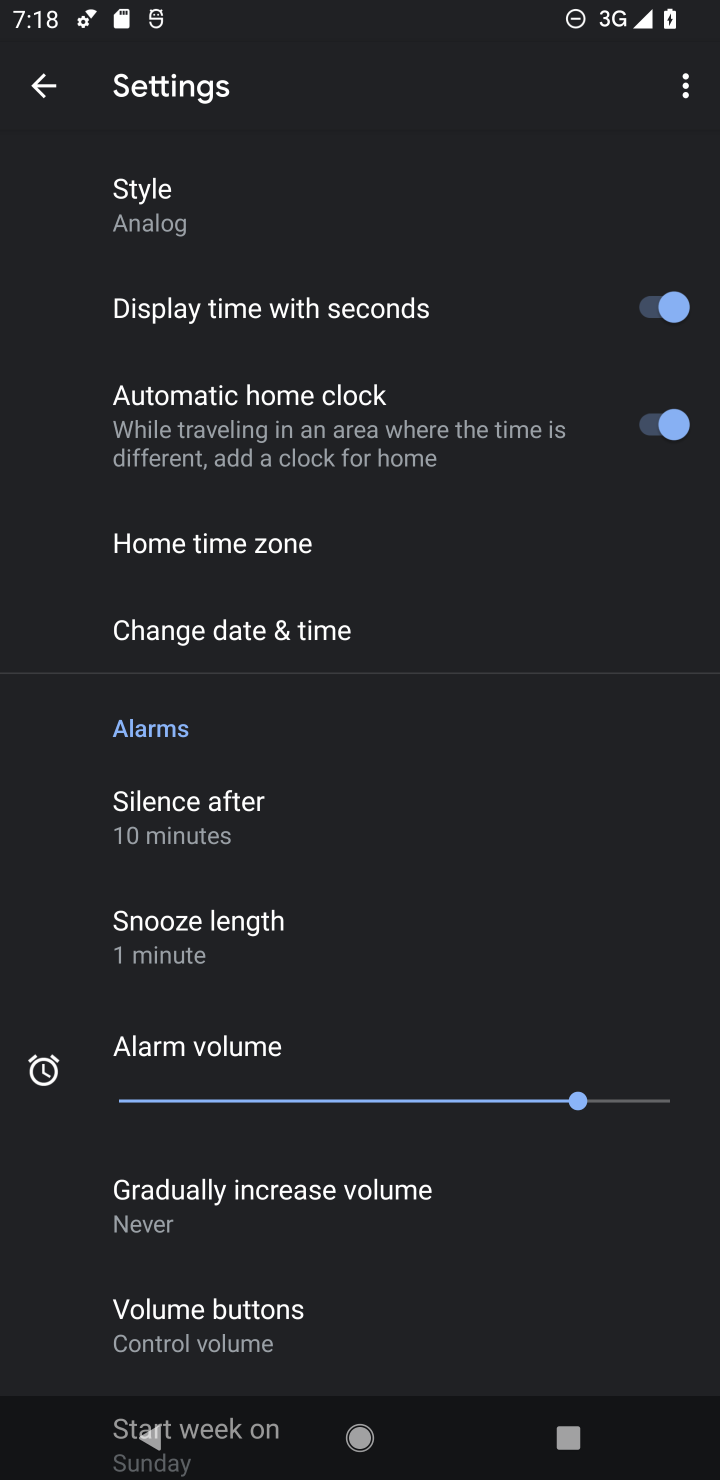
Step 29: click (236, 211)
Your task to perform on an android device: change the clock style Image 30: 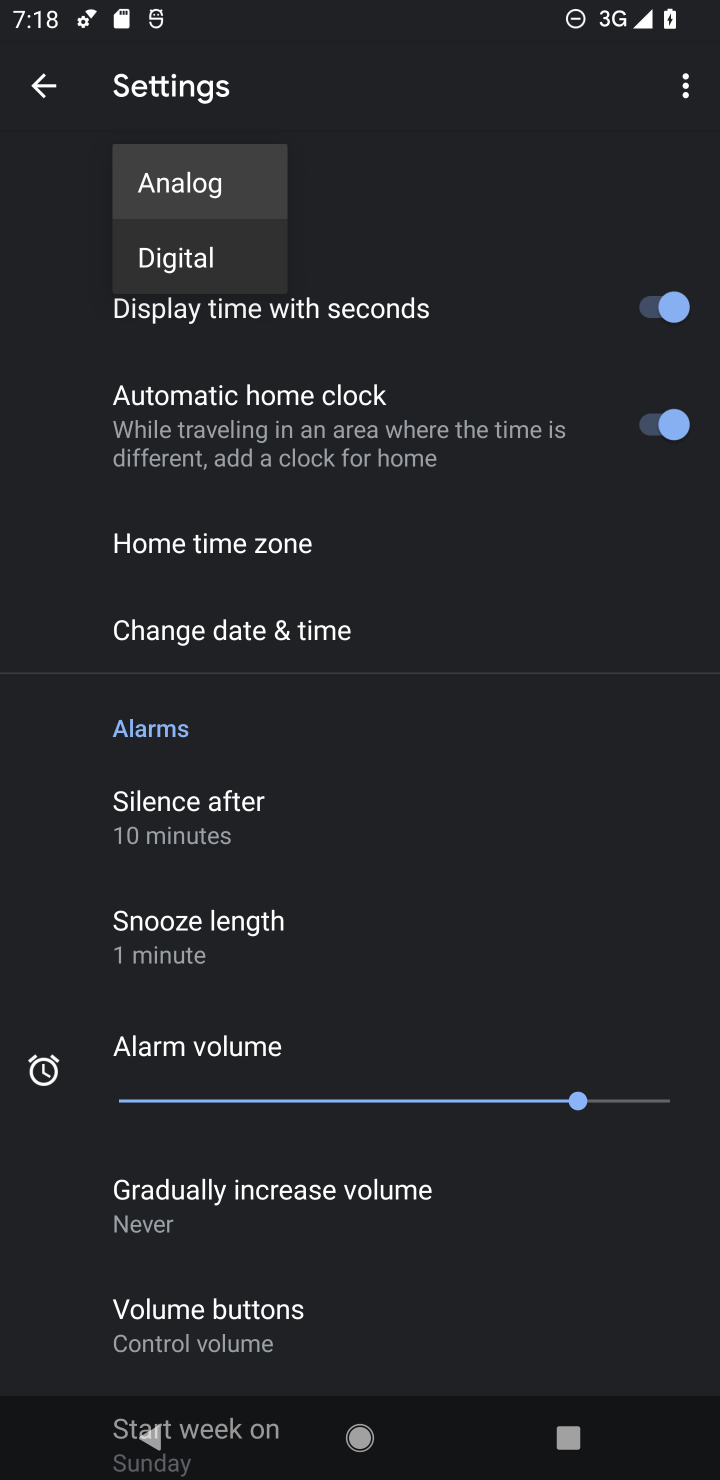
Step 30: click (176, 244)
Your task to perform on an android device: change the clock style Image 31: 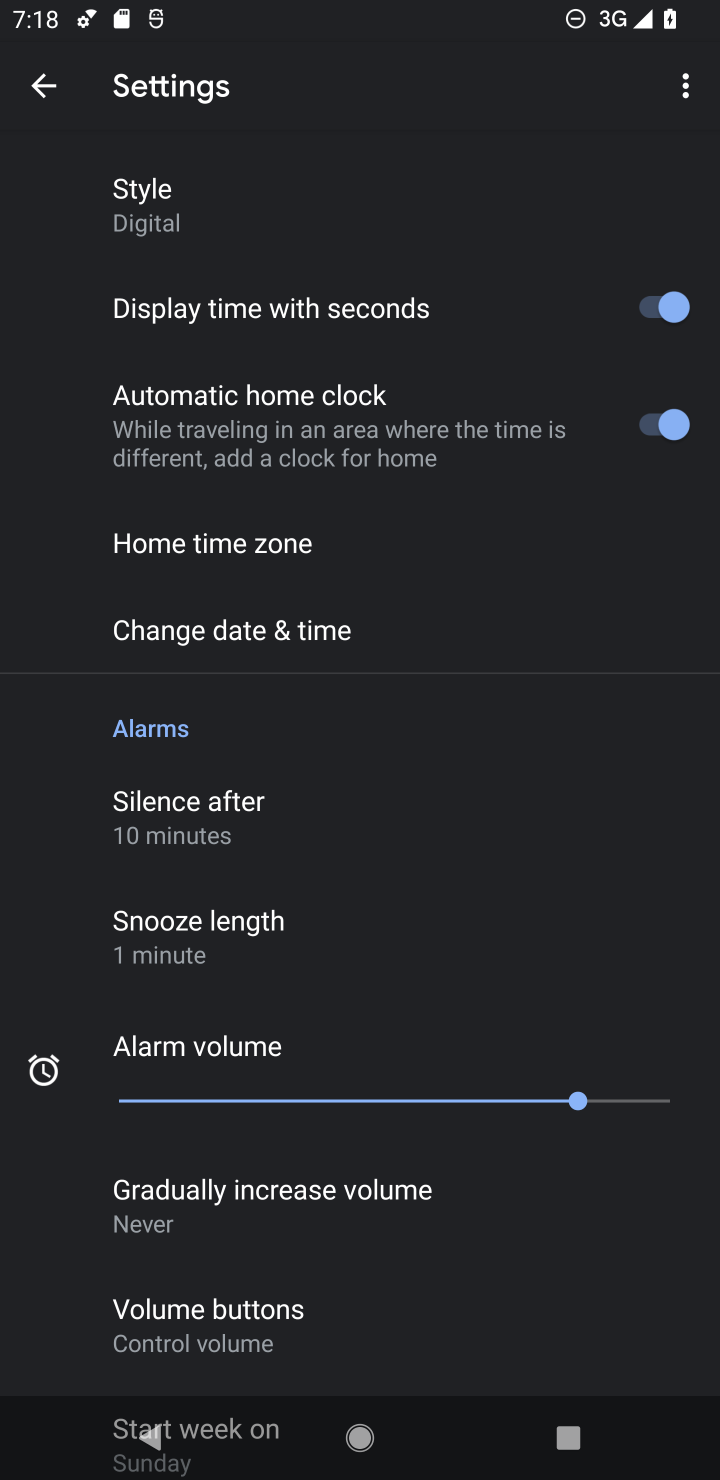
Step 31: task complete